Your task to perform on an android device: check battery use Image 0: 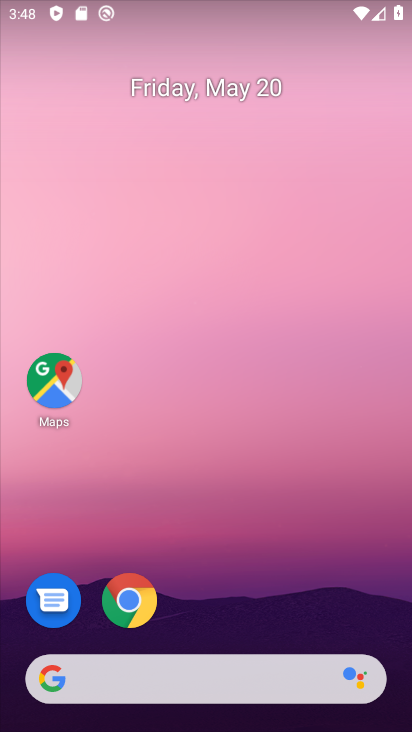
Step 0: drag from (211, 598) to (276, 65)
Your task to perform on an android device: check battery use Image 1: 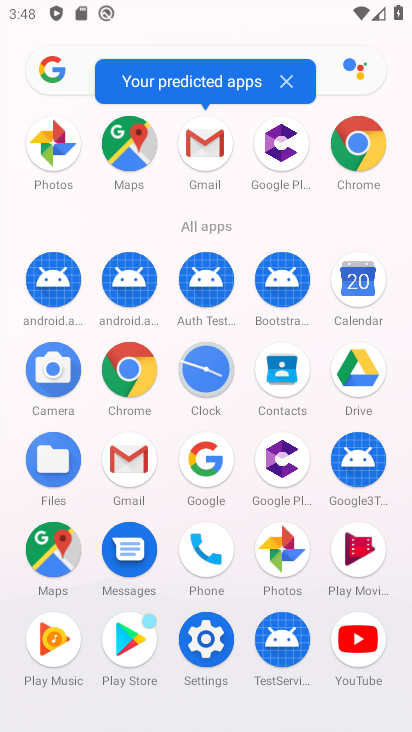
Step 1: click (203, 653)
Your task to perform on an android device: check battery use Image 2: 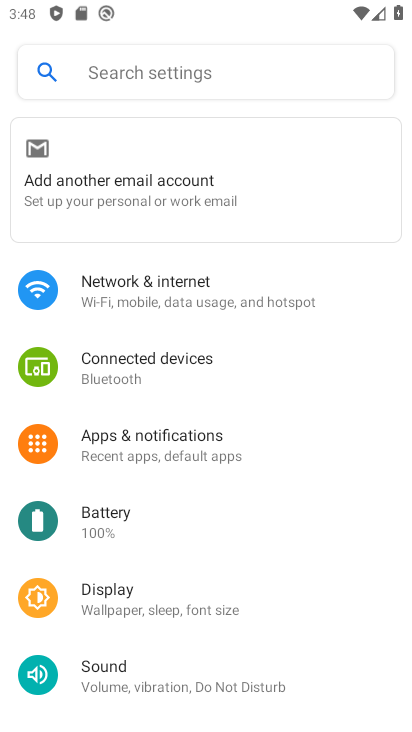
Step 2: click (103, 515)
Your task to perform on an android device: check battery use Image 3: 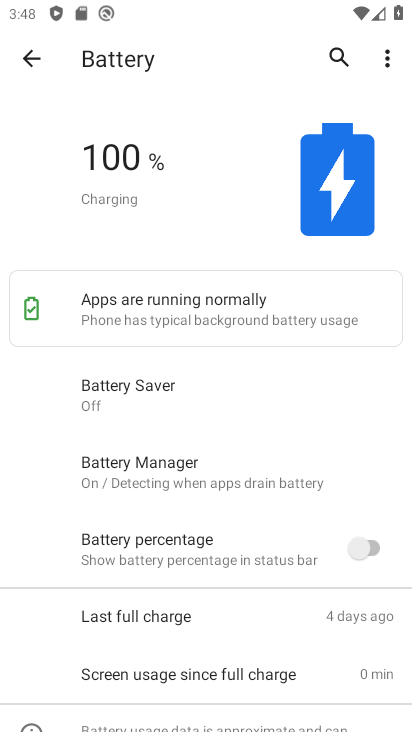
Step 3: click (387, 46)
Your task to perform on an android device: check battery use Image 4: 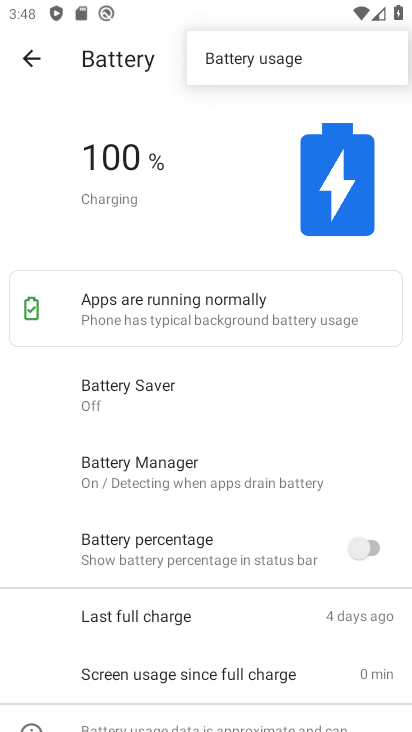
Step 4: click (334, 66)
Your task to perform on an android device: check battery use Image 5: 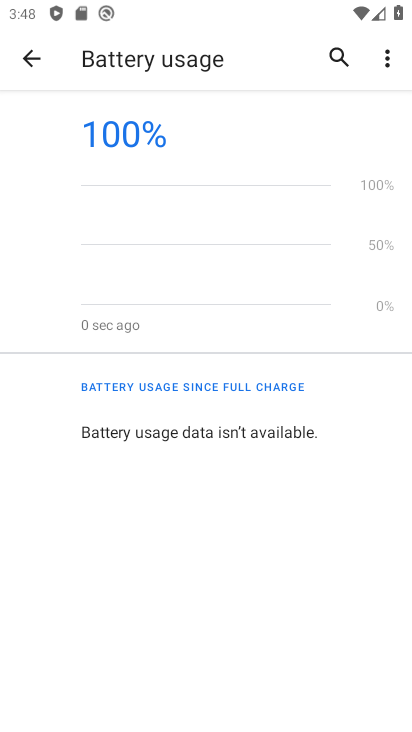
Step 5: task complete